Your task to perform on an android device: turn off notifications in google photos Image 0: 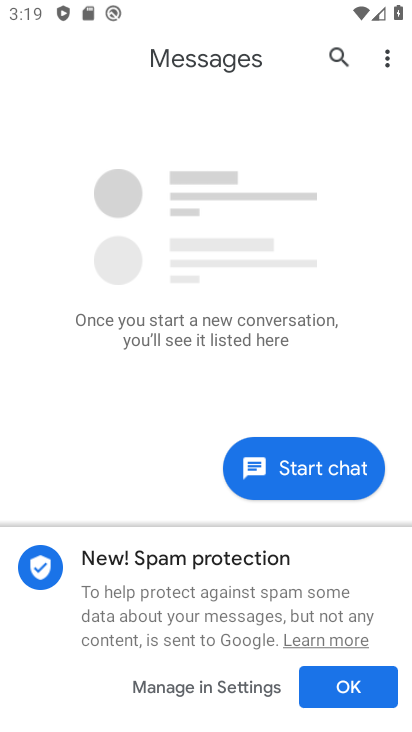
Step 0: press home button
Your task to perform on an android device: turn off notifications in google photos Image 1: 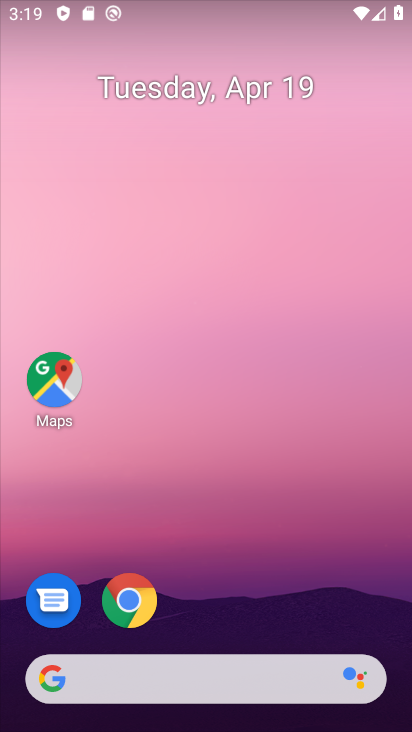
Step 1: drag from (267, 610) to (280, 43)
Your task to perform on an android device: turn off notifications in google photos Image 2: 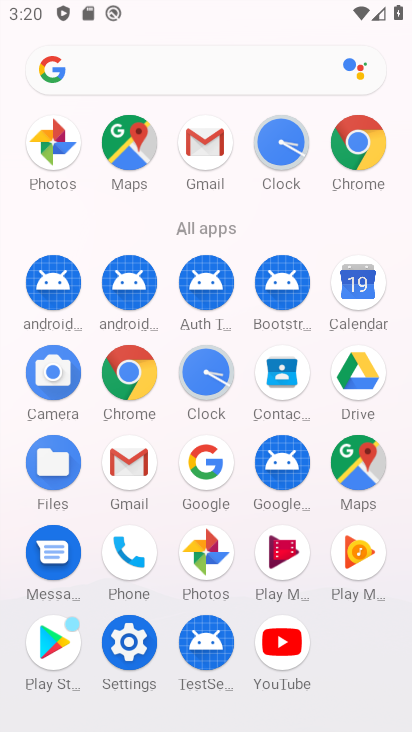
Step 2: click (51, 134)
Your task to perform on an android device: turn off notifications in google photos Image 3: 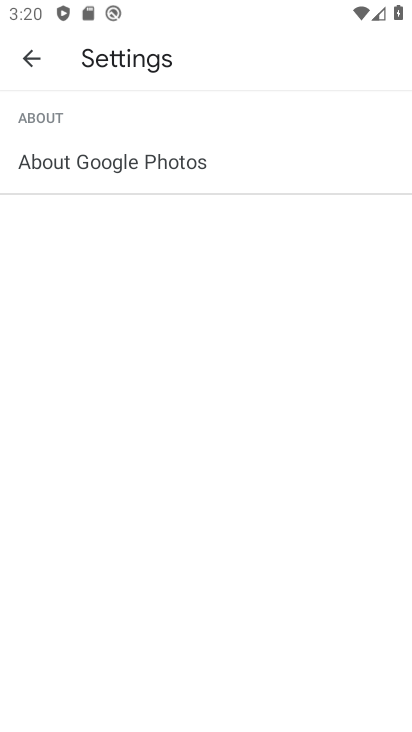
Step 3: click (24, 66)
Your task to perform on an android device: turn off notifications in google photos Image 4: 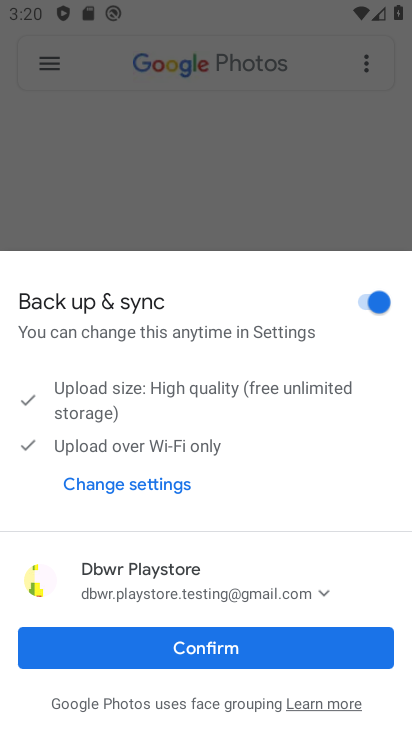
Step 4: click (257, 649)
Your task to perform on an android device: turn off notifications in google photos Image 5: 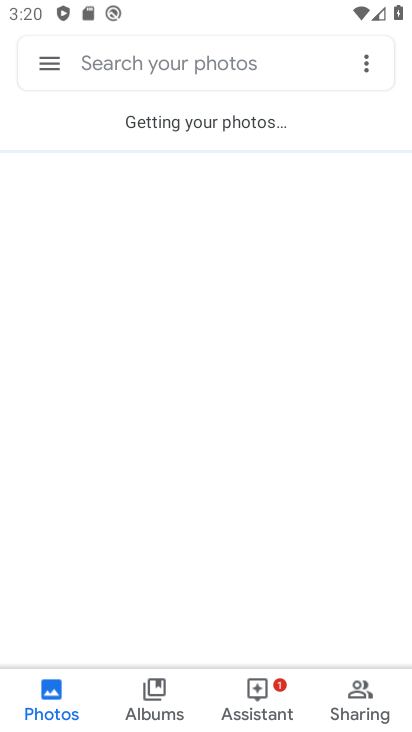
Step 5: click (28, 63)
Your task to perform on an android device: turn off notifications in google photos Image 6: 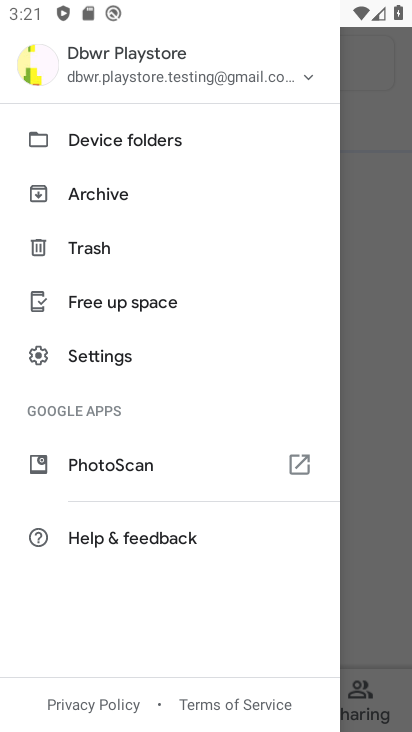
Step 6: click (91, 375)
Your task to perform on an android device: turn off notifications in google photos Image 7: 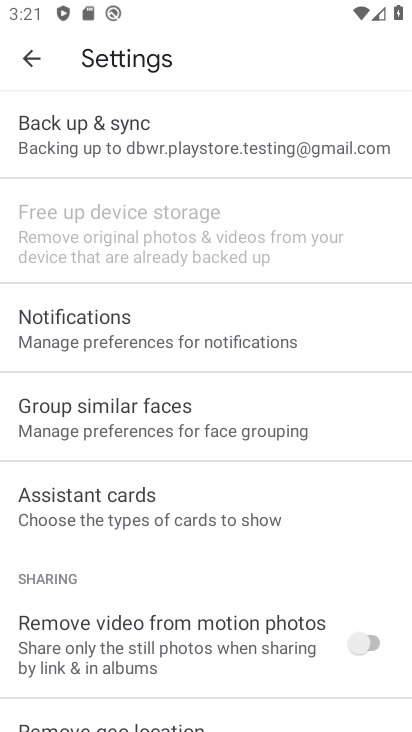
Step 7: click (108, 341)
Your task to perform on an android device: turn off notifications in google photos Image 8: 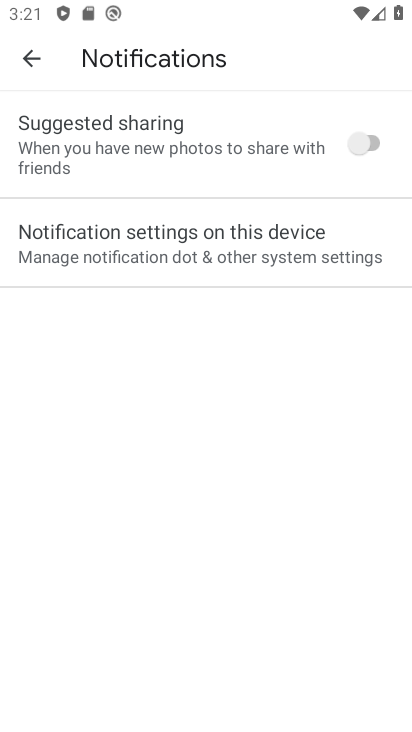
Step 8: click (174, 243)
Your task to perform on an android device: turn off notifications in google photos Image 9: 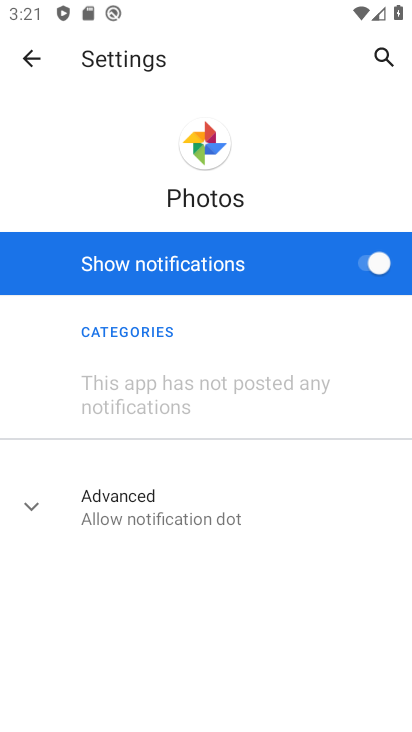
Step 9: click (386, 266)
Your task to perform on an android device: turn off notifications in google photos Image 10: 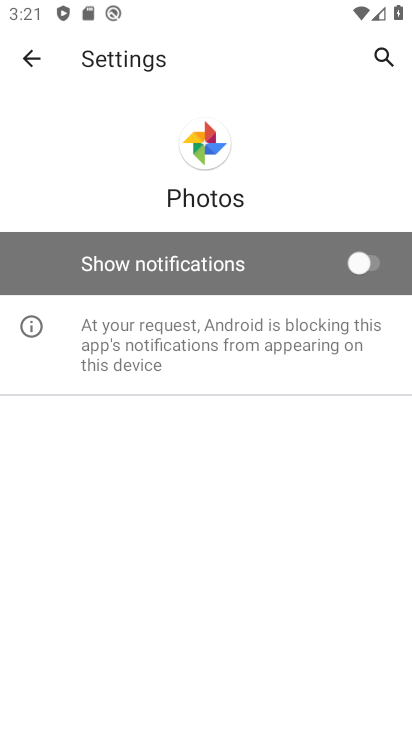
Step 10: task complete